Your task to perform on an android device: Open Youtube and go to the subscriptions tab Image 0: 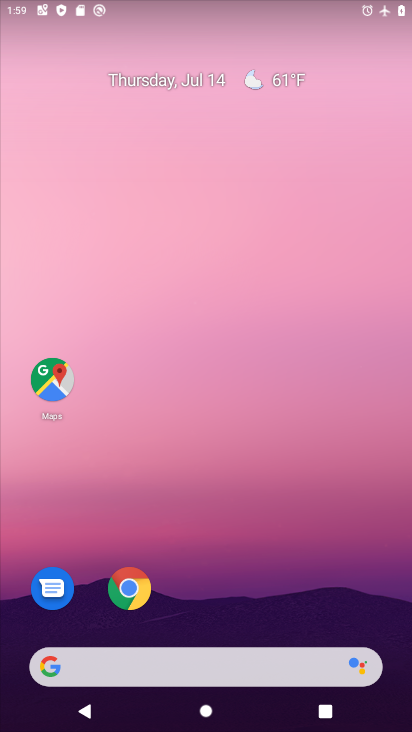
Step 0: drag from (242, 578) to (247, 320)
Your task to perform on an android device: Open Youtube and go to the subscriptions tab Image 1: 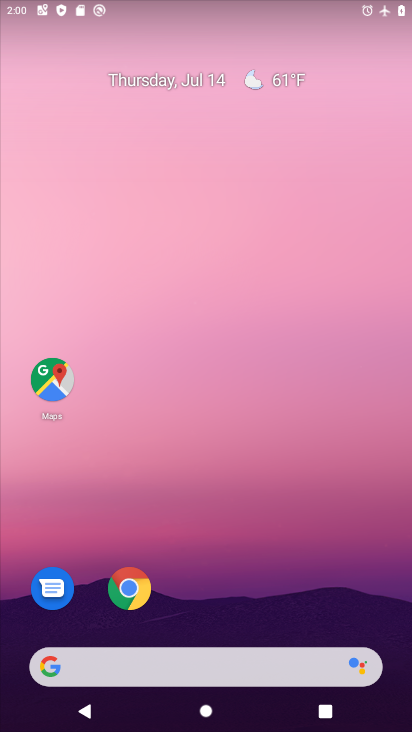
Step 1: drag from (163, 647) to (198, 223)
Your task to perform on an android device: Open Youtube and go to the subscriptions tab Image 2: 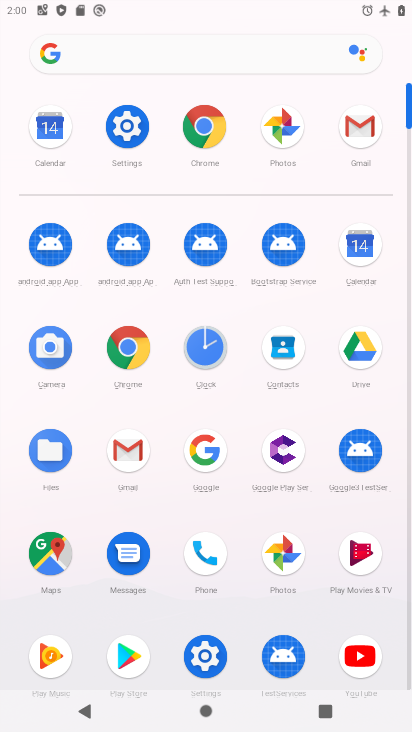
Step 2: click (349, 653)
Your task to perform on an android device: Open Youtube and go to the subscriptions tab Image 3: 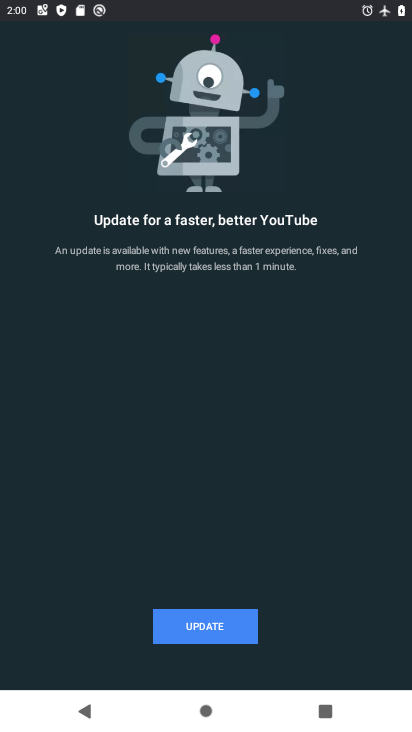
Step 3: task complete